Your task to perform on an android device: Do I have any events today? Image 0: 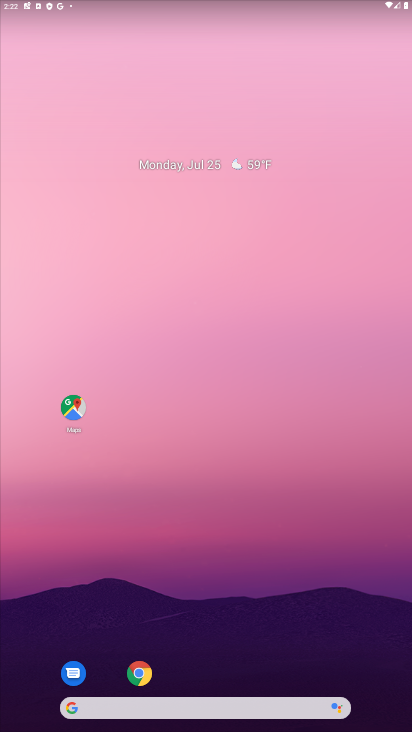
Step 0: click (149, 155)
Your task to perform on an android device: Do I have any events today? Image 1: 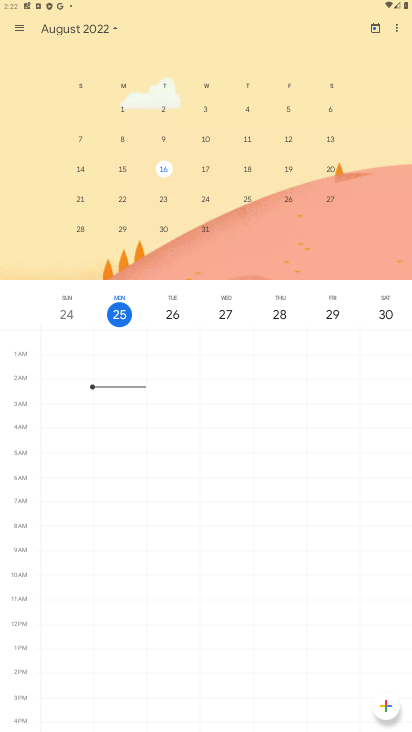
Step 1: task complete